Your task to perform on an android device: What is the recent news? Image 0: 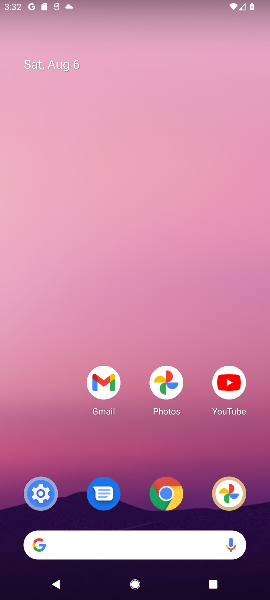
Step 0: drag from (202, 492) to (142, 85)
Your task to perform on an android device: What is the recent news? Image 1: 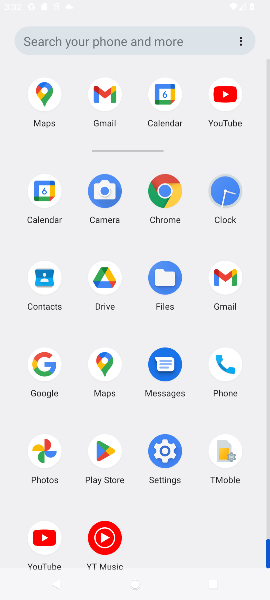
Step 1: drag from (153, 291) to (143, 113)
Your task to perform on an android device: What is the recent news? Image 2: 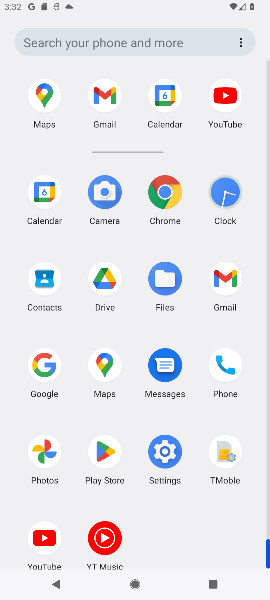
Step 2: drag from (181, 424) to (162, 104)
Your task to perform on an android device: What is the recent news? Image 3: 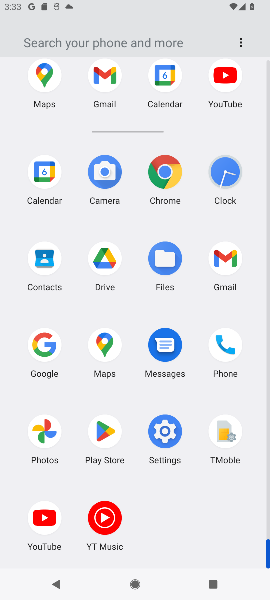
Step 3: click (166, 176)
Your task to perform on an android device: What is the recent news? Image 4: 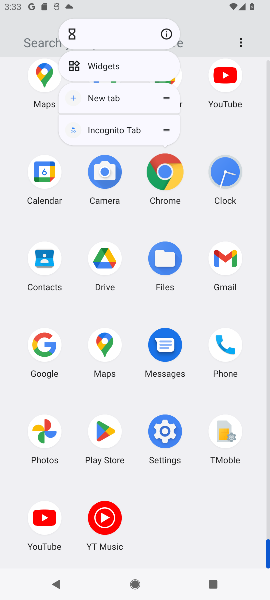
Step 4: click (165, 175)
Your task to perform on an android device: What is the recent news? Image 5: 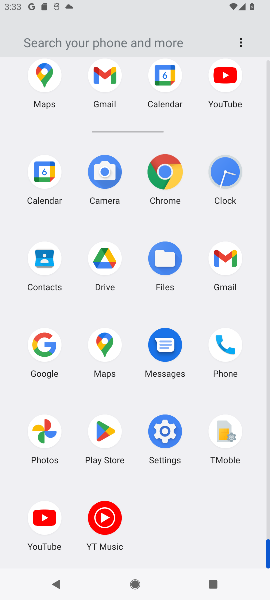
Step 5: click (166, 171)
Your task to perform on an android device: What is the recent news? Image 6: 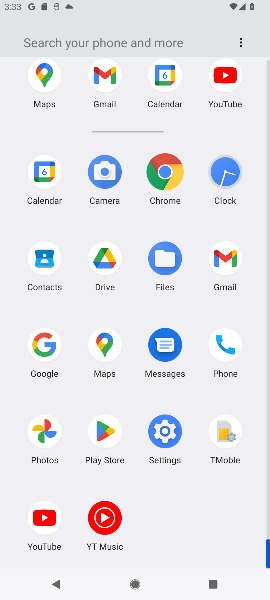
Step 6: click (168, 171)
Your task to perform on an android device: What is the recent news? Image 7: 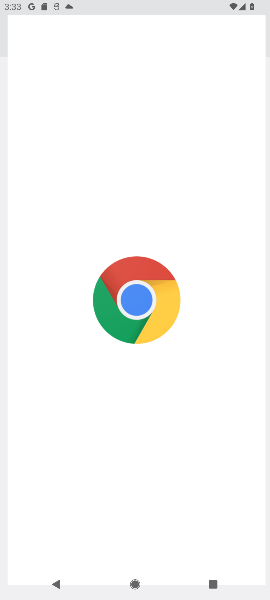
Step 7: click (169, 172)
Your task to perform on an android device: What is the recent news? Image 8: 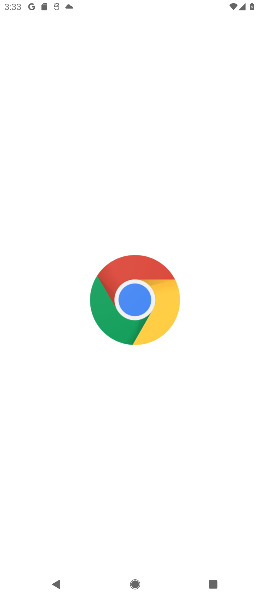
Step 8: click (171, 171)
Your task to perform on an android device: What is the recent news? Image 9: 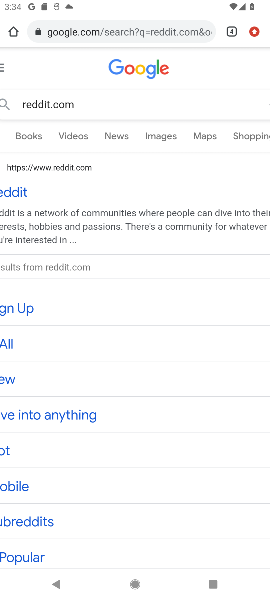
Step 9: click (250, 24)
Your task to perform on an android device: What is the recent news? Image 10: 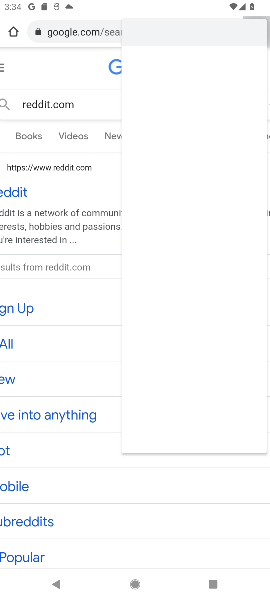
Step 10: drag from (250, 24) to (192, 95)
Your task to perform on an android device: What is the recent news? Image 11: 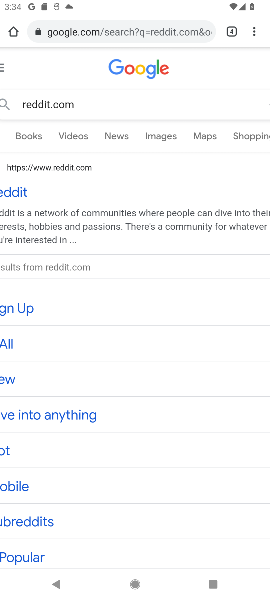
Step 11: click (249, 35)
Your task to perform on an android device: What is the recent news? Image 12: 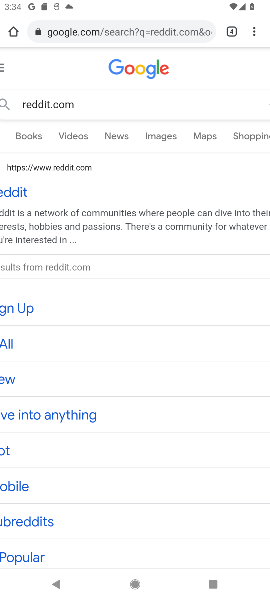
Step 12: click (249, 35)
Your task to perform on an android device: What is the recent news? Image 13: 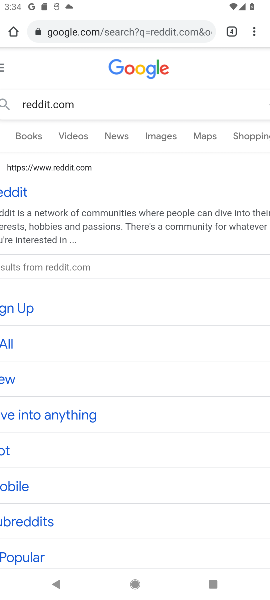
Step 13: drag from (256, 31) to (169, 423)
Your task to perform on an android device: What is the recent news? Image 14: 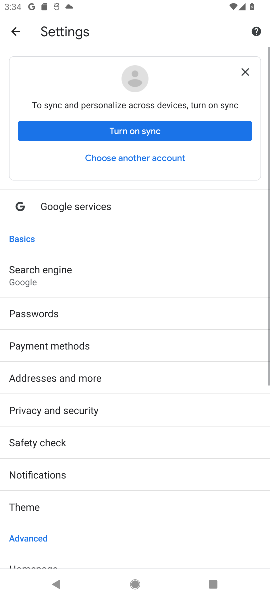
Step 14: click (19, 31)
Your task to perform on an android device: What is the recent news? Image 15: 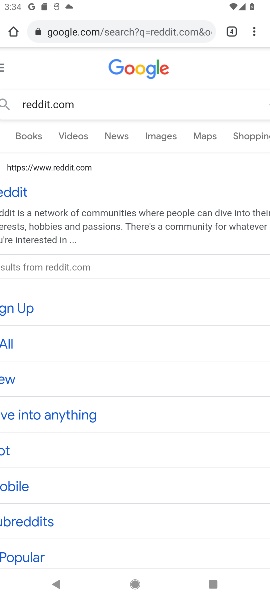
Step 15: drag from (244, 31) to (113, 535)
Your task to perform on an android device: What is the recent news? Image 16: 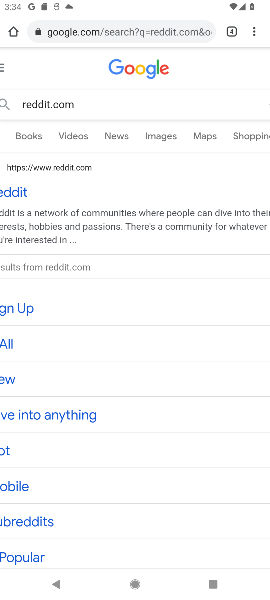
Step 16: click (253, 36)
Your task to perform on an android device: What is the recent news? Image 17: 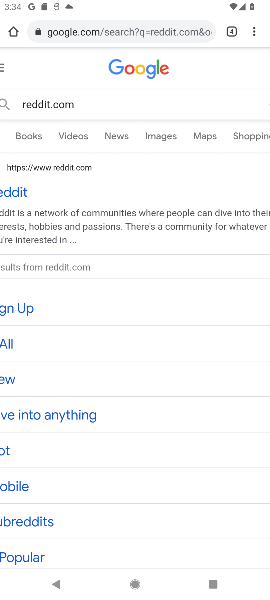
Step 17: click (255, 28)
Your task to perform on an android device: What is the recent news? Image 18: 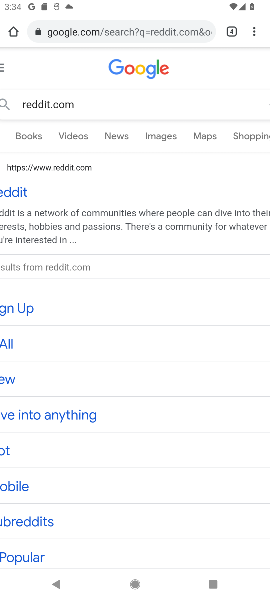
Step 18: click (255, 28)
Your task to perform on an android device: What is the recent news? Image 19: 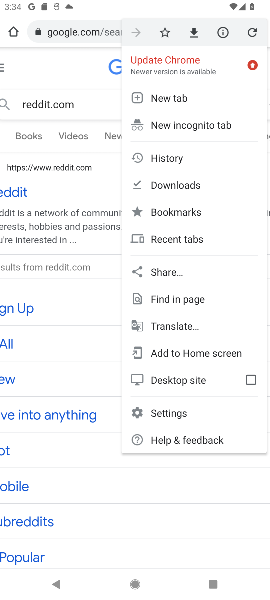
Step 19: click (166, 238)
Your task to perform on an android device: What is the recent news? Image 20: 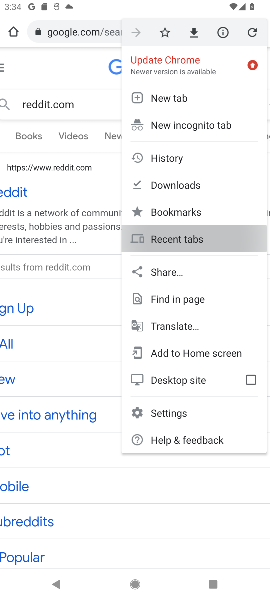
Step 20: click (169, 236)
Your task to perform on an android device: What is the recent news? Image 21: 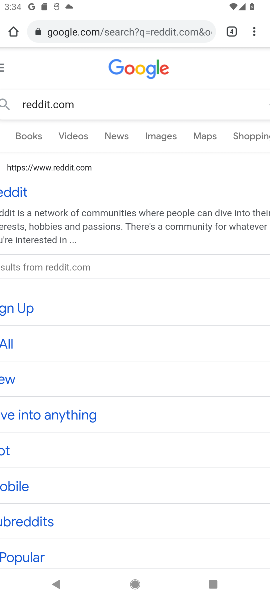
Step 21: click (169, 236)
Your task to perform on an android device: What is the recent news? Image 22: 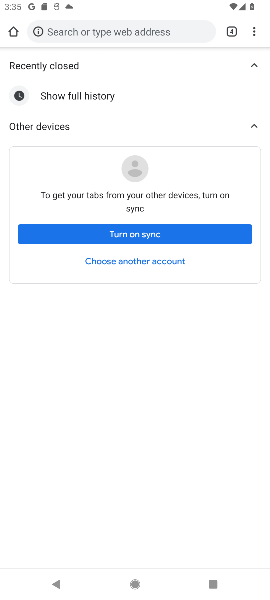
Step 22: task complete